Your task to perform on an android device: Go to calendar. Show me events next week Image 0: 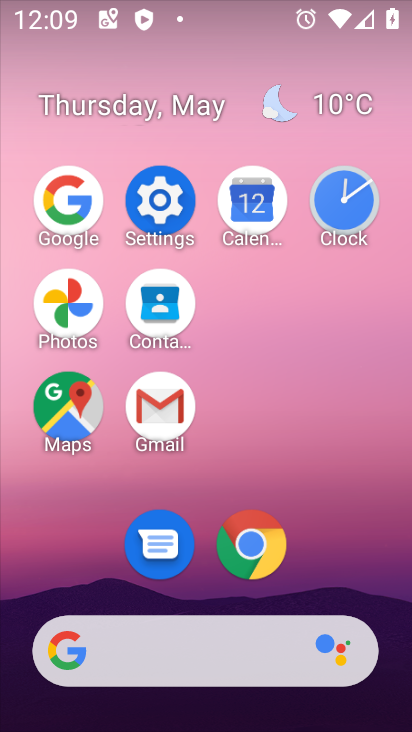
Step 0: click (246, 206)
Your task to perform on an android device: Go to calendar. Show me events next week Image 1: 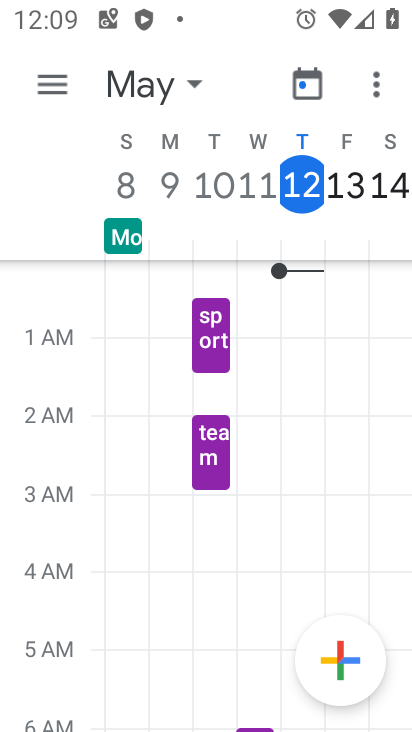
Step 1: click (57, 73)
Your task to perform on an android device: Go to calendar. Show me events next week Image 2: 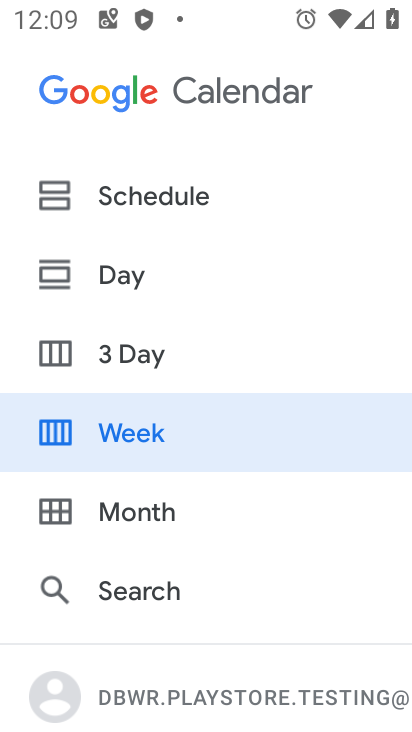
Step 2: click (217, 421)
Your task to perform on an android device: Go to calendar. Show me events next week Image 3: 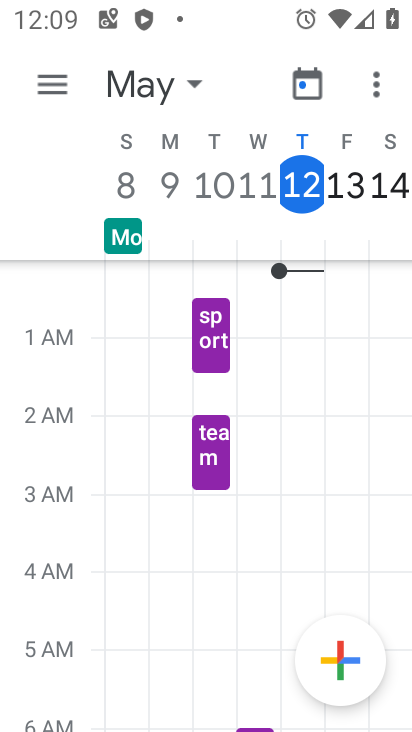
Step 3: task complete